Your task to perform on an android device: Open Maps and search for coffee Image 0: 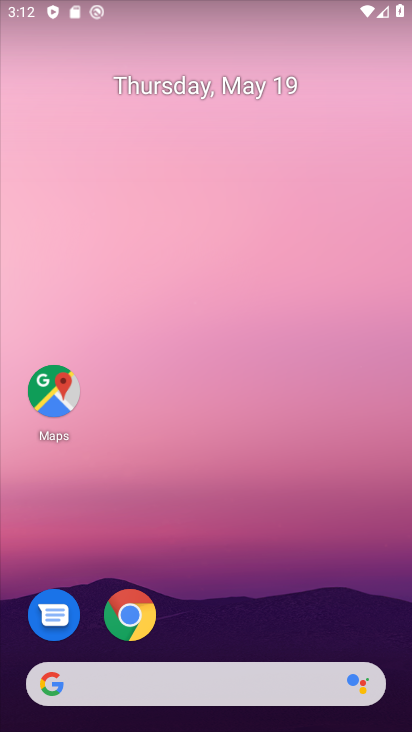
Step 0: click (64, 389)
Your task to perform on an android device: Open Maps and search for coffee Image 1: 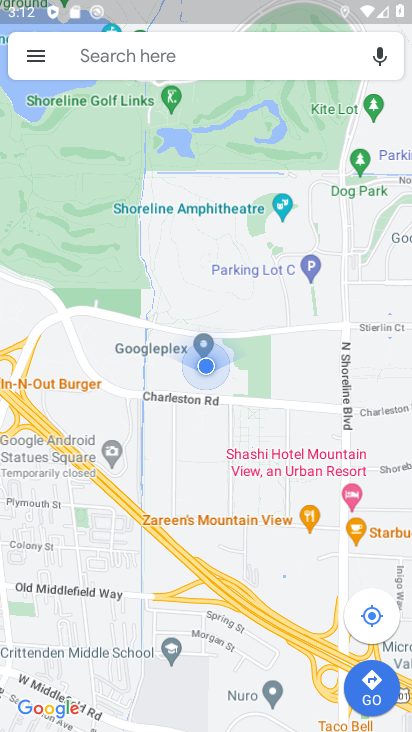
Step 1: click (127, 68)
Your task to perform on an android device: Open Maps and search for coffee Image 2: 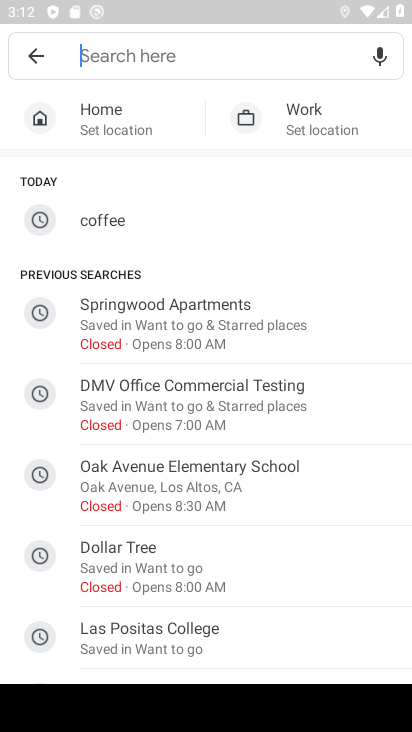
Step 2: click (152, 223)
Your task to perform on an android device: Open Maps and search for coffee Image 3: 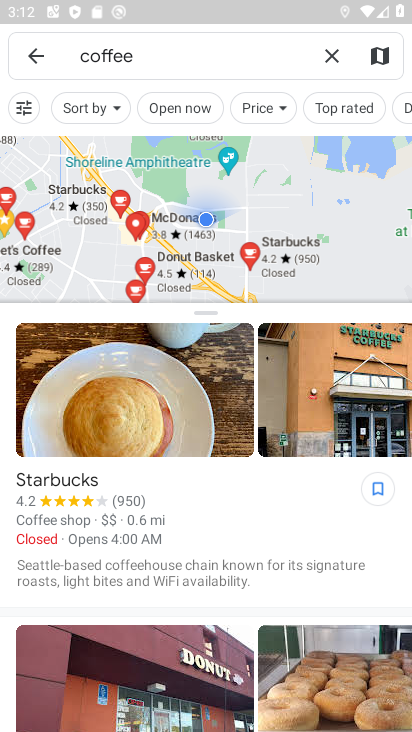
Step 3: task complete